Your task to perform on an android device: Go to Android settings Image 0: 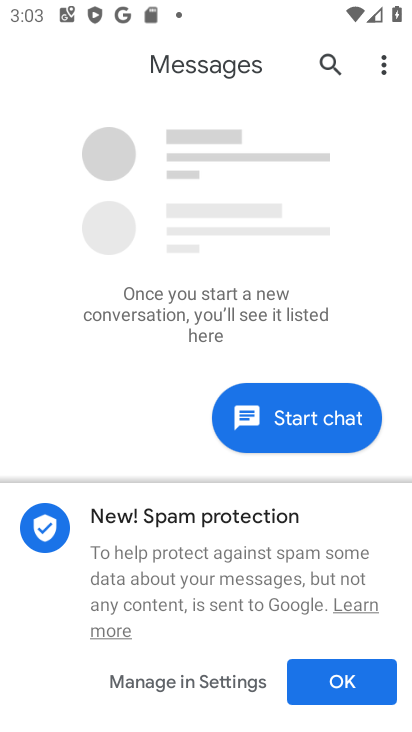
Step 0: press home button
Your task to perform on an android device: Go to Android settings Image 1: 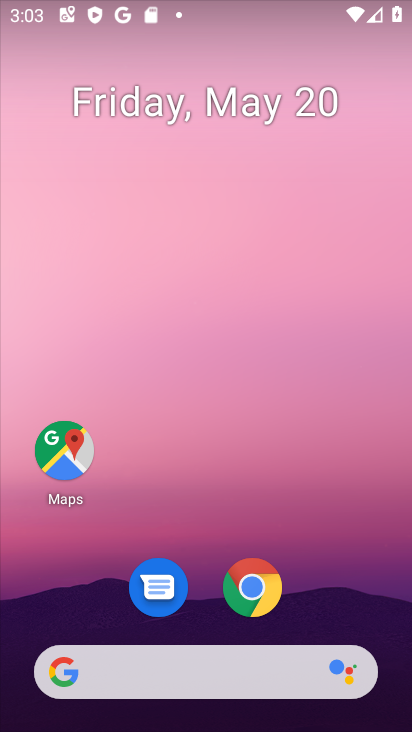
Step 1: drag from (215, 685) to (310, 206)
Your task to perform on an android device: Go to Android settings Image 2: 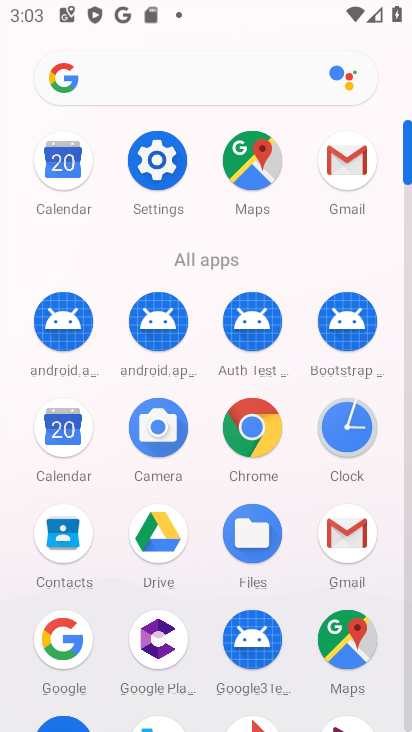
Step 2: click (166, 159)
Your task to perform on an android device: Go to Android settings Image 3: 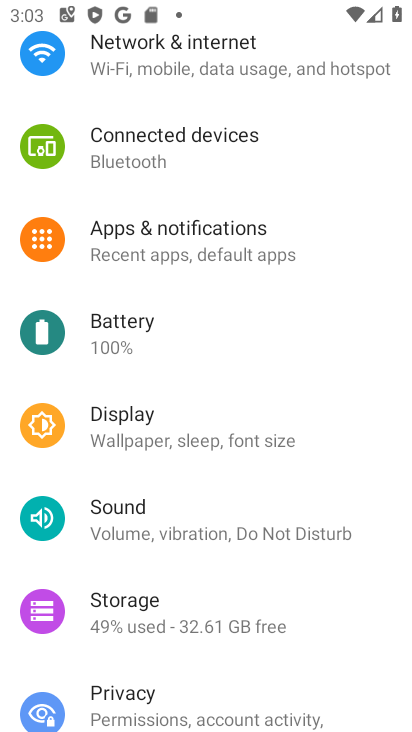
Step 3: drag from (243, 679) to (378, 1)
Your task to perform on an android device: Go to Android settings Image 4: 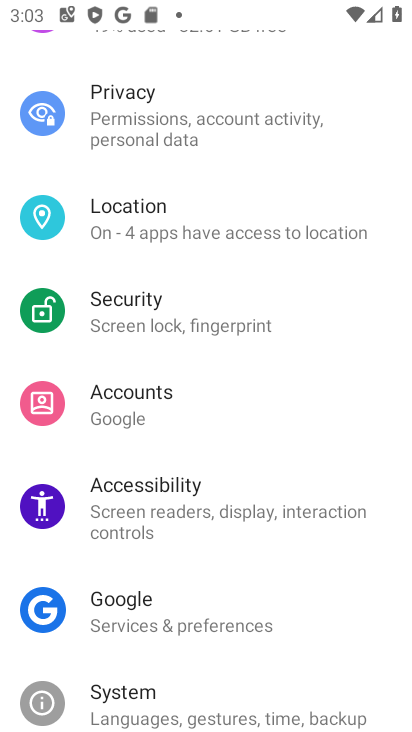
Step 4: drag from (260, 664) to (345, 112)
Your task to perform on an android device: Go to Android settings Image 5: 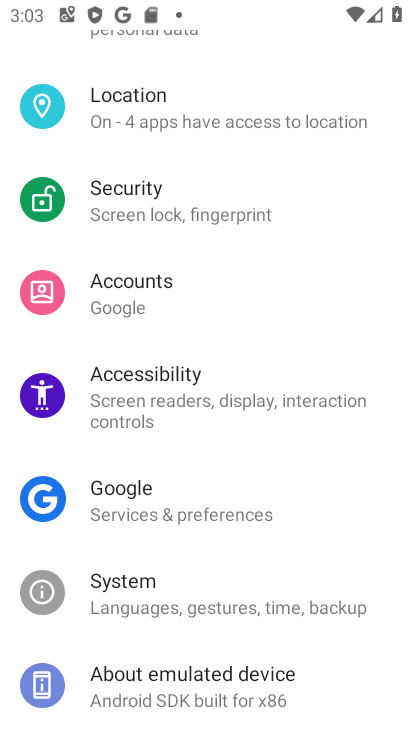
Step 5: click (219, 681)
Your task to perform on an android device: Go to Android settings Image 6: 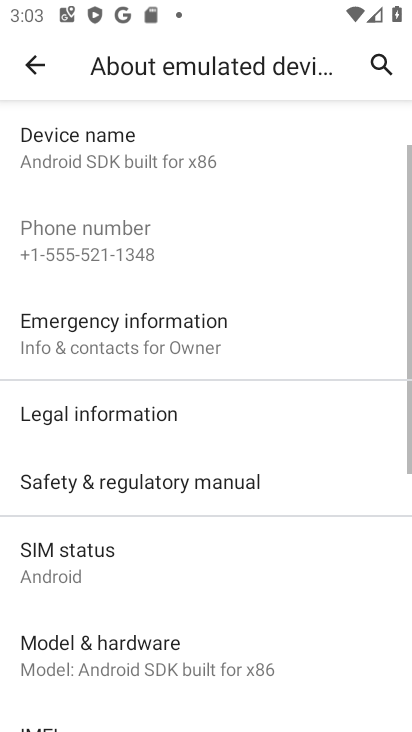
Step 6: task complete